Your task to perform on an android device: uninstall "DuckDuckGo Privacy Browser" Image 0: 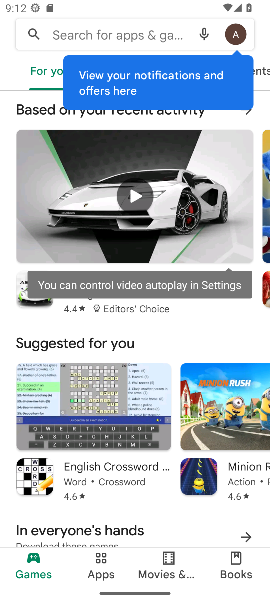
Step 0: press home button
Your task to perform on an android device: uninstall "DuckDuckGo Privacy Browser" Image 1: 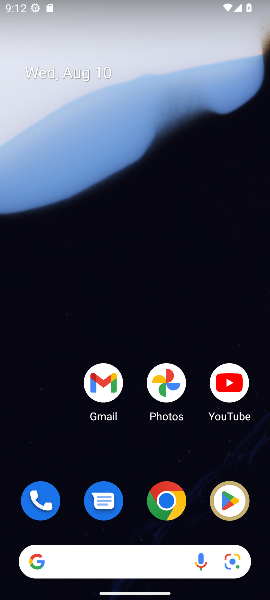
Step 1: click (246, 507)
Your task to perform on an android device: uninstall "DuckDuckGo Privacy Browser" Image 2: 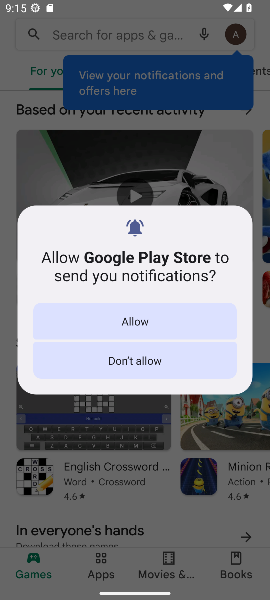
Step 2: click (150, 320)
Your task to perform on an android device: uninstall "DuckDuckGo Privacy Browser" Image 3: 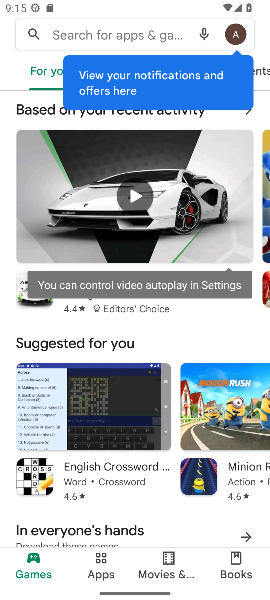
Step 3: click (132, 43)
Your task to perform on an android device: uninstall "DuckDuckGo Privacy Browser" Image 4: 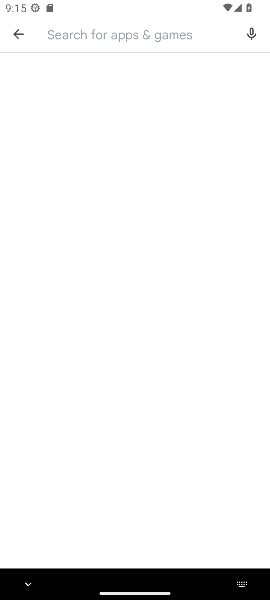
Step 4: type ";pduck duck go"
Your task to perform on an android device: uninstall "DuckDuckGo Privacy Browser" Image 5: 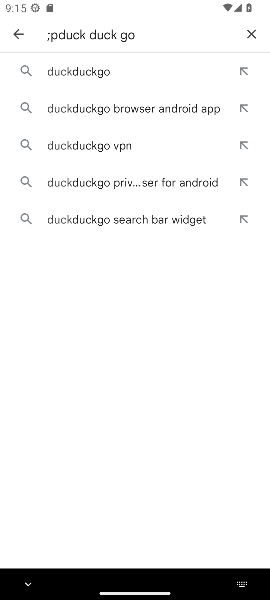
Step 5: click (107, 58)
Your task to perform on an android device: uninstall "DuckDuckGo Privacy Browser" Image 6: 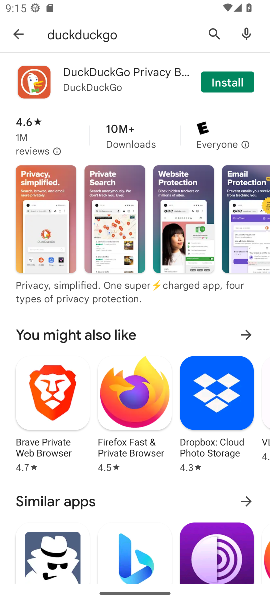
Step 6: click (205, 91)
Your task to perform on an android device: uninstall "DuckDuckGo Privacy Browser" Image 7: 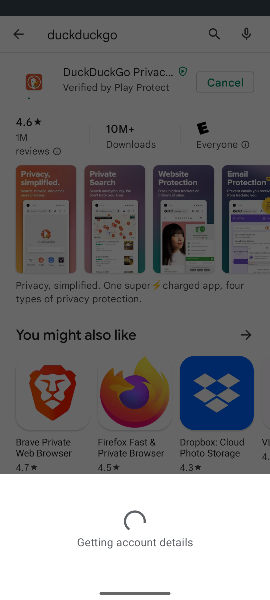
Step 7: task complete